Your task to perform on an android device: Do I have any events this weekend? Image 0: 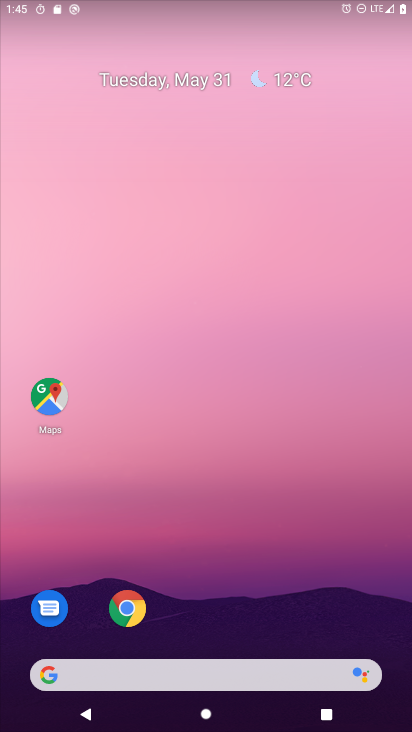
Step 0: drag from (290, 639) to (249, 24)
Your task to perform on an android device: Do I have any events this weekend? Image 1: 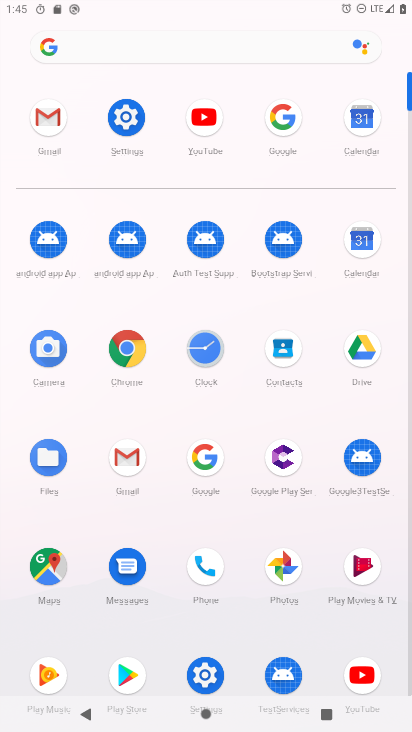
Step 1: click (358, 115)
Your task to perform on an android device: Do I have any events this weekend? Image 2: 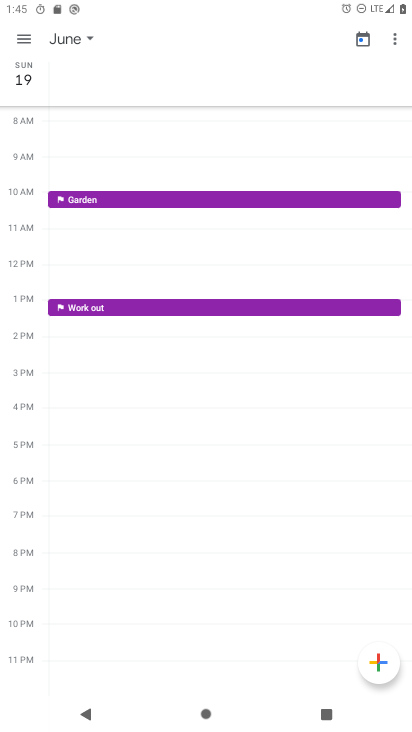
Step 2: click (14, 36)
Your task to perform on an android device: Do I have any events this weekend? Image 3: 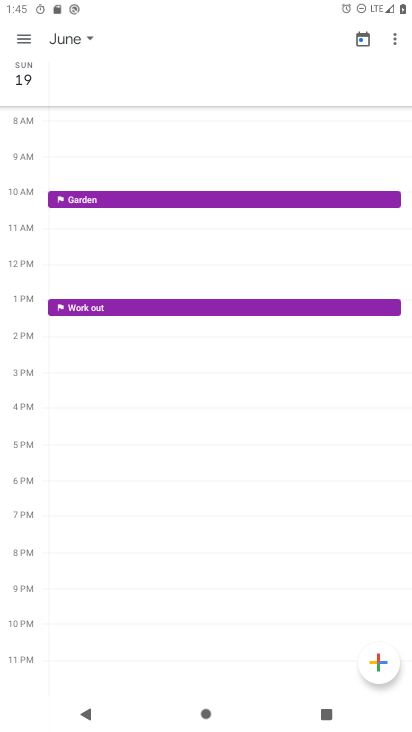
Step 3: click (21, 40)
Your task to perform on an android device: Do I have any events this weekend? Image 4: 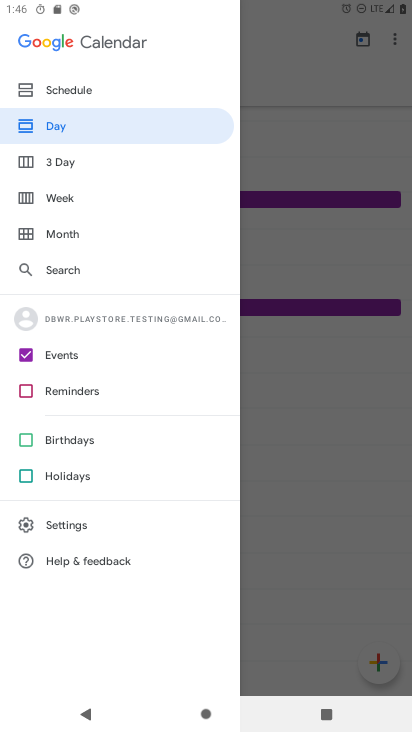
Step 4: click (27, 87)
Your task to perform on an android device: Do I have any events this weekend? Image 5: 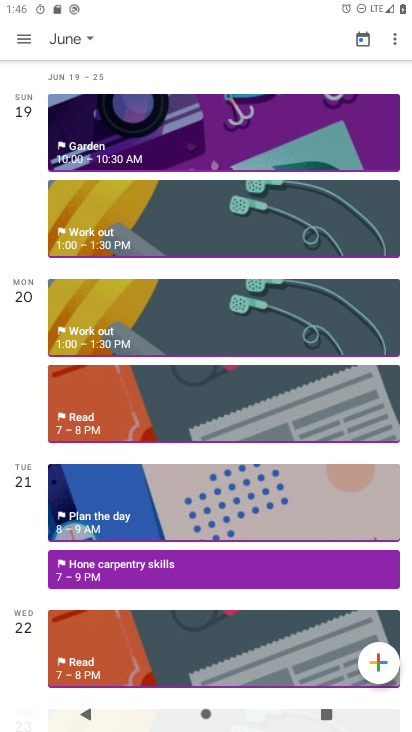
Step 5: click (369, 46)
Your task to perform on an android device: Do I have any events this weekend? Image 6: 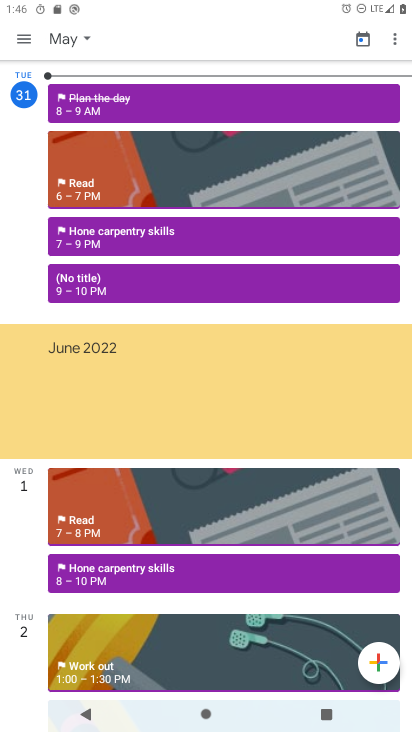
Step 6: drag from (153, 550) to (148, 111)
Your task to perform on an android device: Do I have any events this weekend? Image 7: 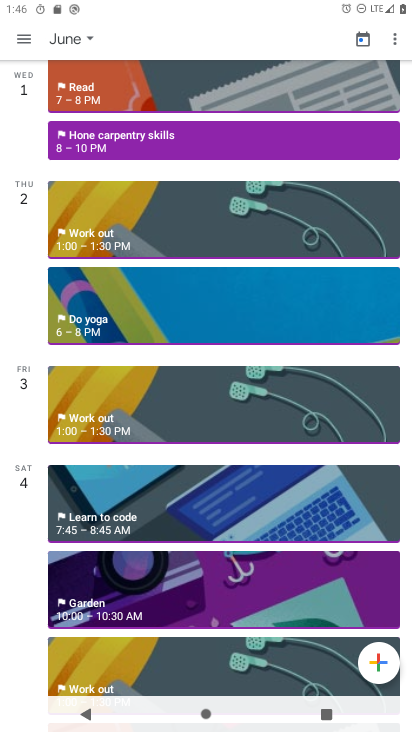
Step 7: drag from (99, 528) to (109, 369)
Your task to perform on an android device: Do I have any events this weekend? Image 8: 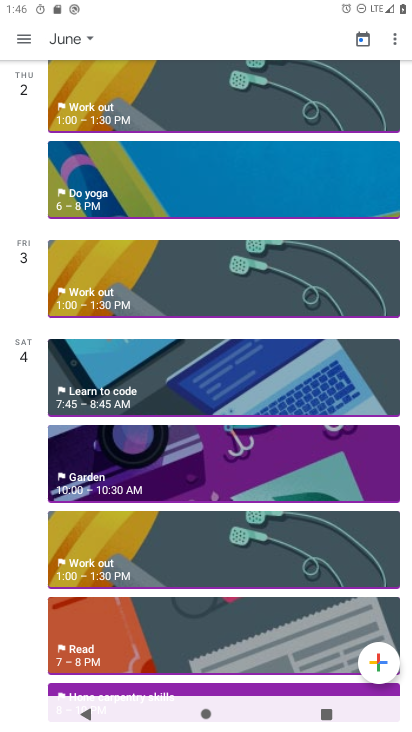
Step 8: drag from (97, 472) to (107, 333)
Your task to perform on an android device: Do I have any events this weekend? Image 9: 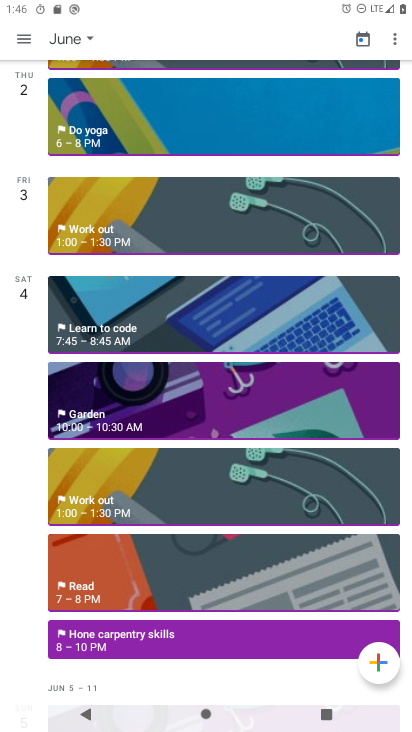
Step 9: click (91, 638)
Your task to perform on an android device: Do I have any events this weekend? Image 10: 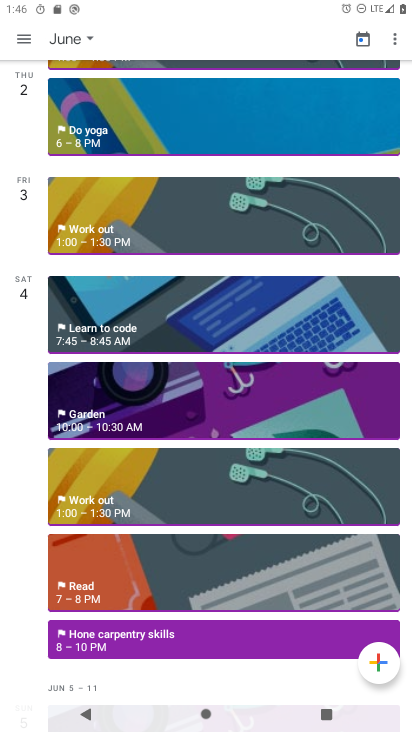
Step 10: click (91, 638)
Your task to perform on an android device: Do I have any events this weekend? Image 11: 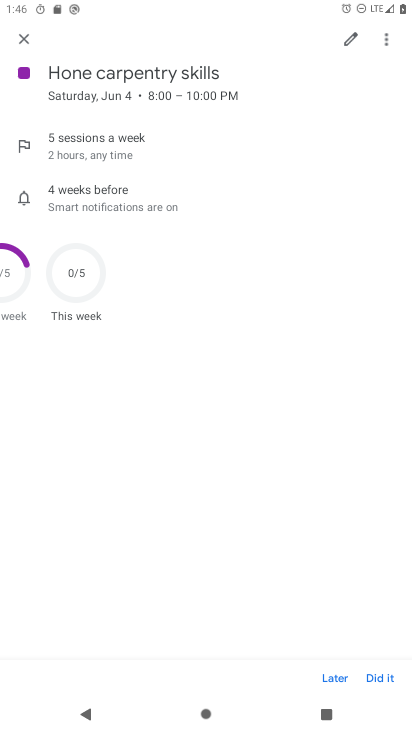
Step 11: task complete